Your task to perform on an android device: turn off airplane mode Image 0: 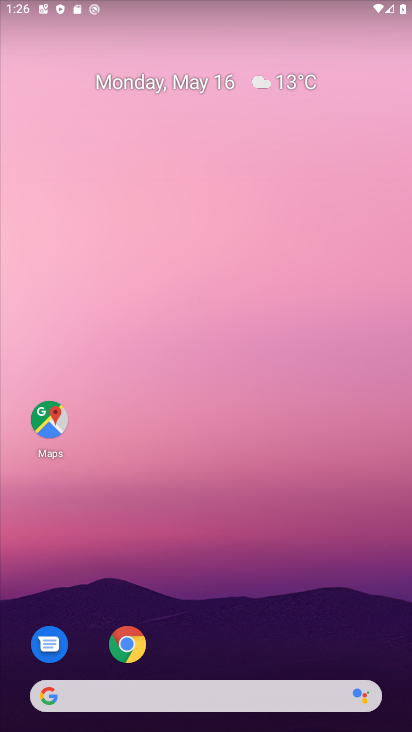
Step 0: drag from (190, 636) to (235, 259)
Your task to perform on an android device: turn off airplane mode Image 1: 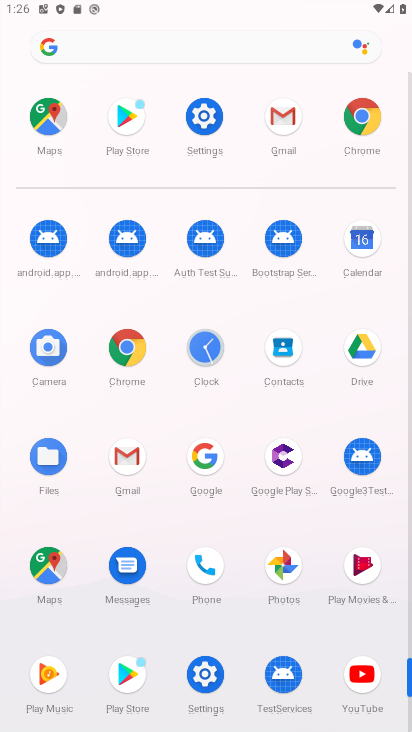
Step 1: click (218, 130)
Your task to perform on an android device: turn off airplane mode Image 2: 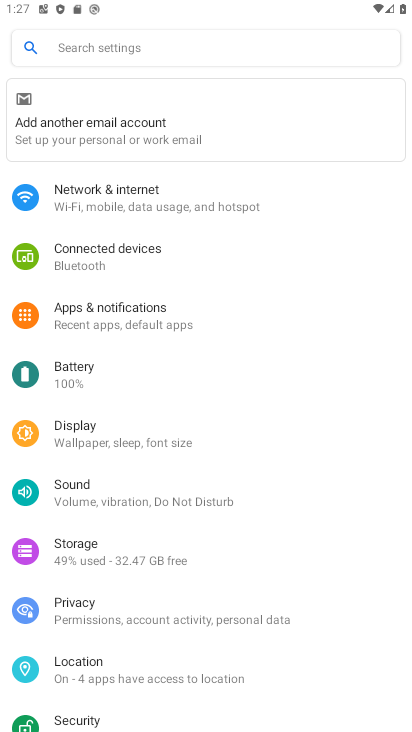
Step 2: click (199, 212)
Your task to perform on an android device: turn off airplane mode Image 3: 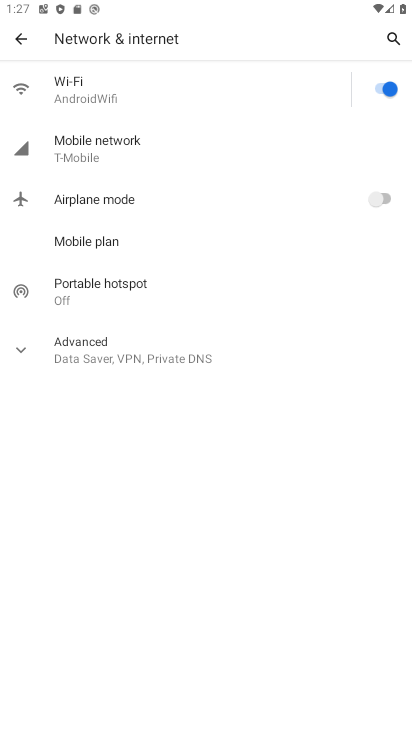
Step 3: task complete